Your task to perform on an android device: delete location history Image 0: 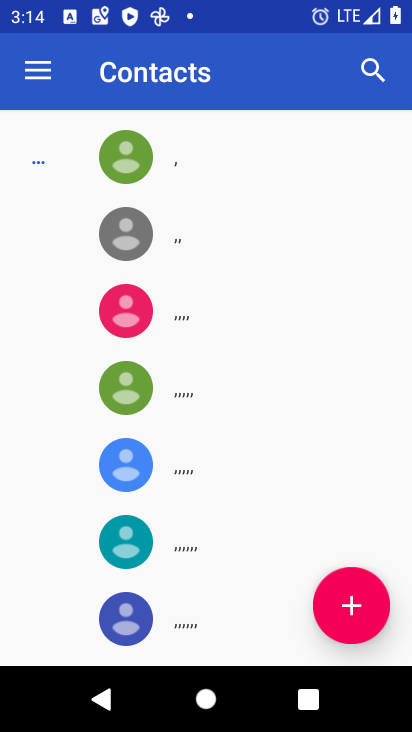
Step 0: press home button
Your task to perform on an android device: delete location history Image 1: 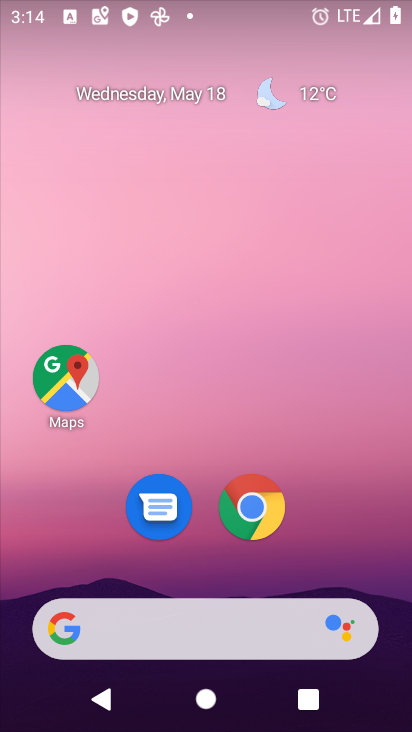
Step 1: click (65, 376)
Your task to perform on an android device: delete location history Image 2: 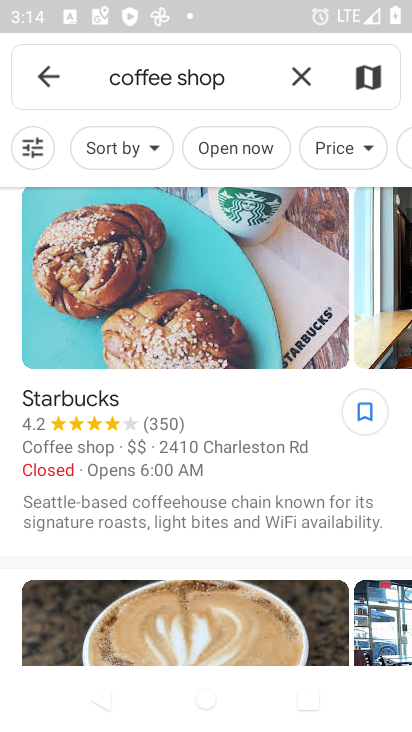
Step 2: click (302, 82)
Your task to perform on an android device: delete location history Image 3: 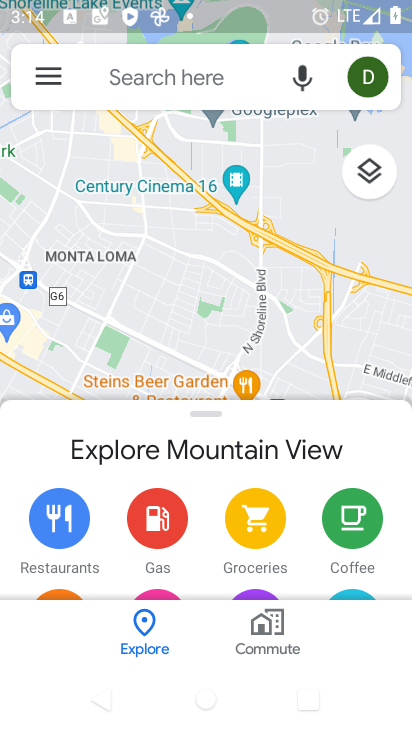
Step 3: click (43, 71)
Your task to perform on an android device: delete location history Image 4: 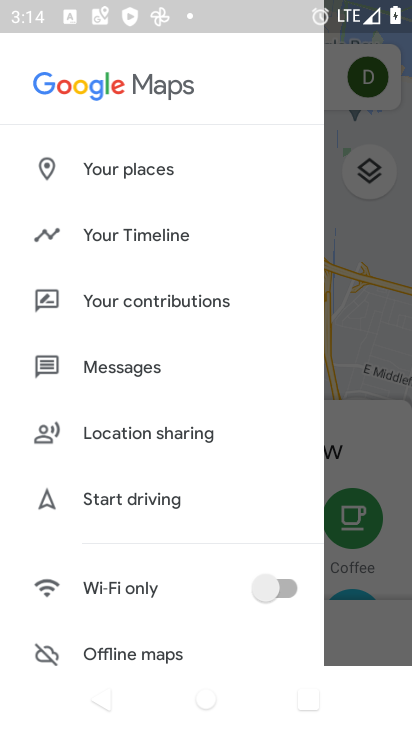
Step 4: drag from (196, 614) to (240, 150)
Your task to perform on an android device: delete location history Image 5: 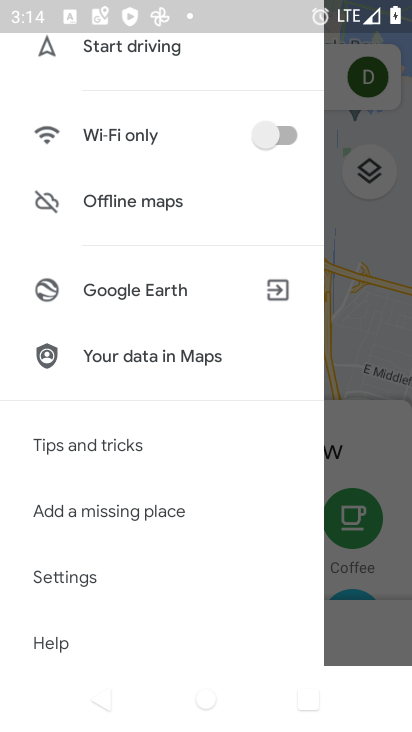
Step 5: click (59, 583)
Your task to perform on an android device: delete location history Image 6: 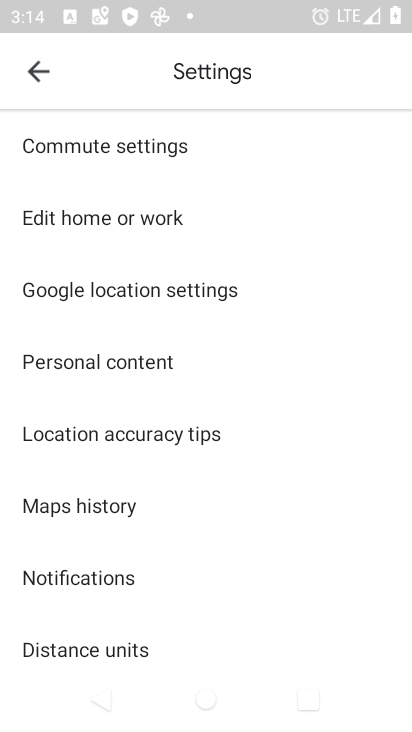
Step 6: click (96, 352)
Your task to perform on an android device: delete location history Image 7: 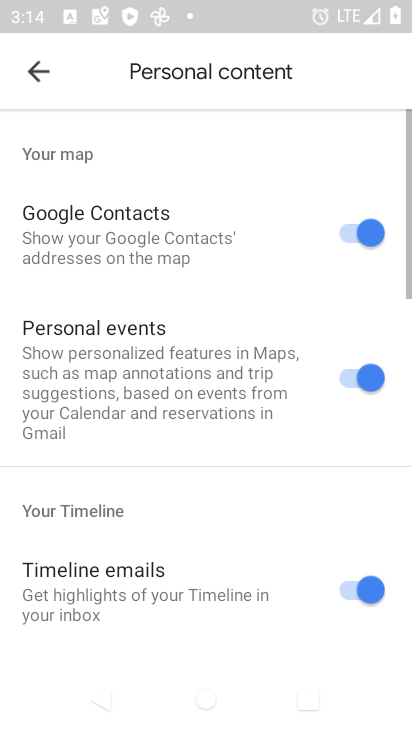
Step 7: drag from (304, 624) to (307, 115)
Your task to perform on an android device: delete location history Image 8: 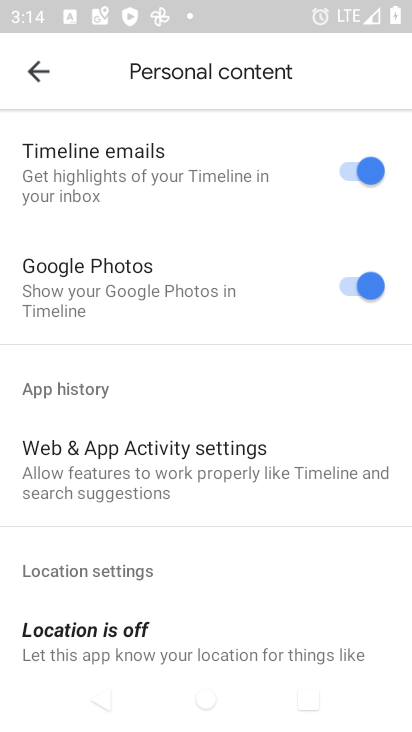
Step 8: drag from (312, 560) to (291, 175)
Your task to perform on an android device: delete location history Image 9: 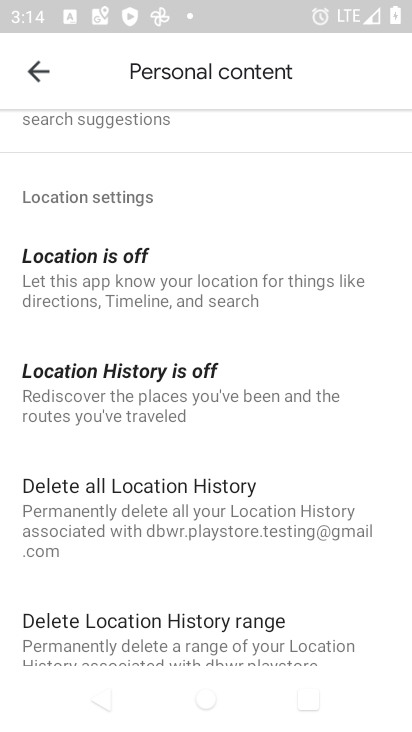
Step 9: click (81, 503)
Your task to perform on an android device: delete location history Image 10: 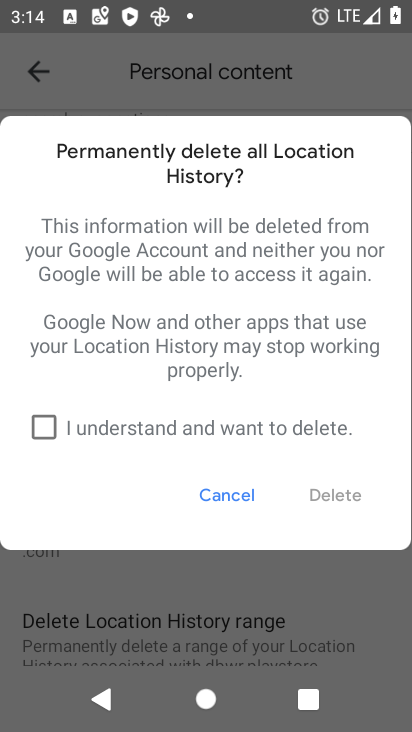
Step 10: click (38, 422)
Your task to perform on an android device: delete location history Image 11: 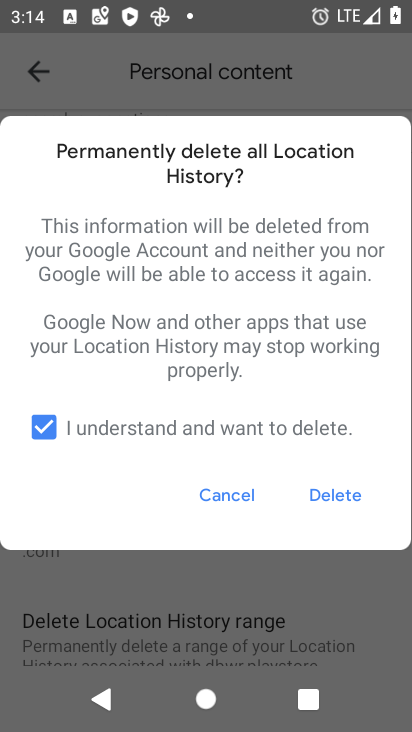
Step 11: click (337, 495)
Your task to perform on an android device: delete location history Image 12: 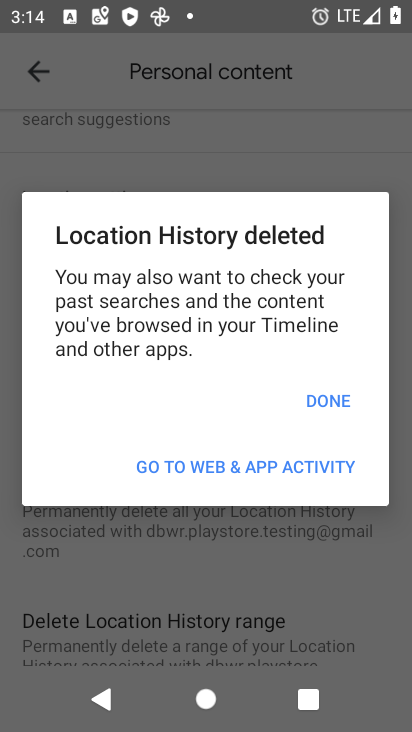
Step 12: click (317, 401)
Your task to perform on an android device: delete location history Image 13: 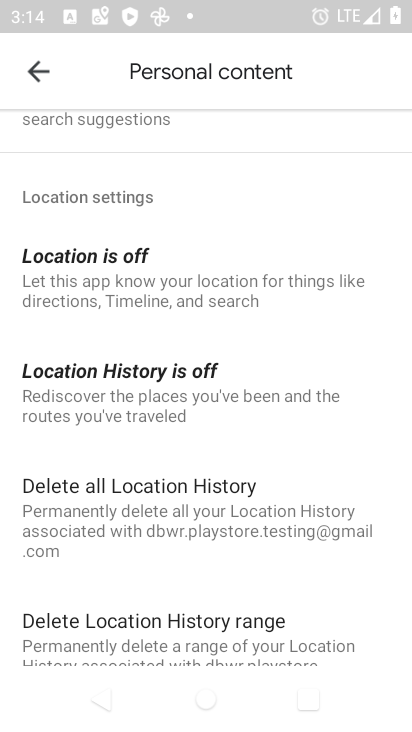
Step 13: task complete